Your task to perform on an android device: Open the map Image 0: 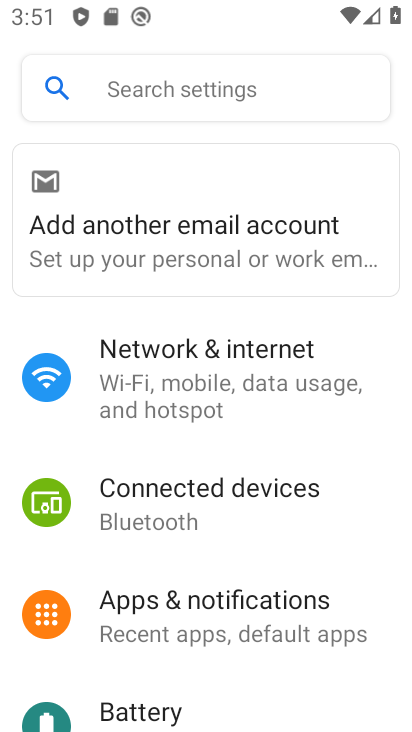
Step 0: press home button
Your task to perform on an android device: Open the map Image 1: 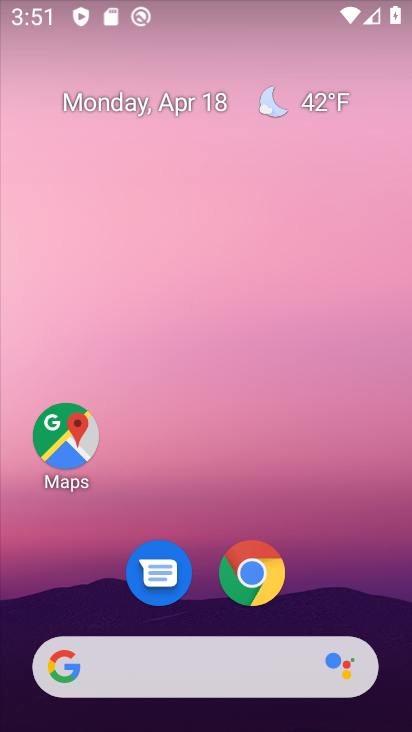
Step 1: click (70, 432)
Your task to perform on an android device: Open the map Image 2: 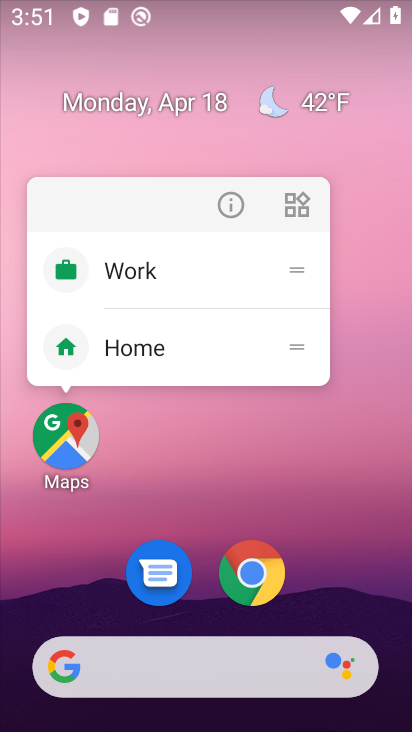
Step 2: click (71, 440)
Your task to perform on an android device: Open the map Image 3: 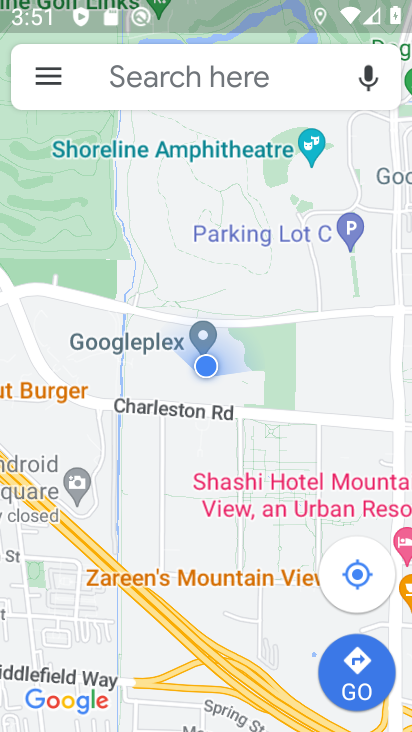
Step 3: task complete